Your task to perform on an android device: choose inbox layout in the gmail app Image 0: 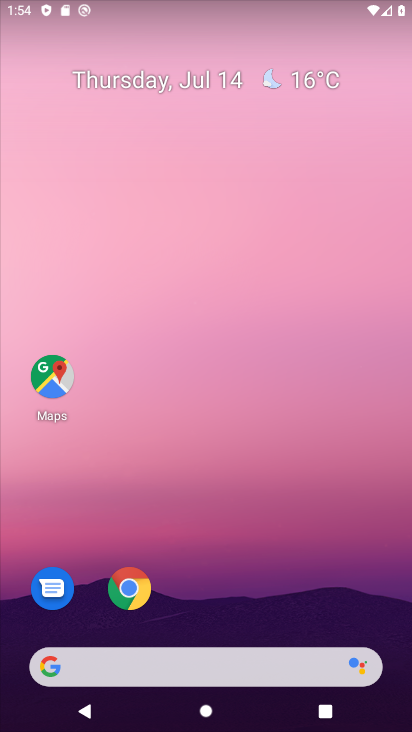
Step 0: drag from (206, 611) to (340, 30)
Your task to perform on an android device: choose inbox layout in the gmail app Image 1: 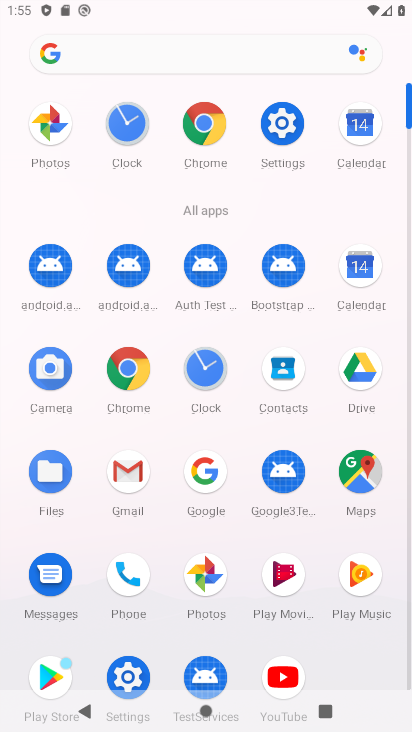
Step 1: click (137, 462)
Your task to perform on an android device: choose inbox layout in the gmail app Image 2: 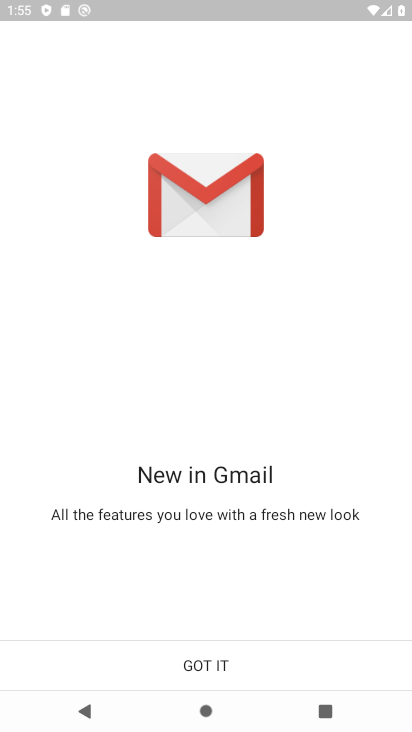
Step 2: click (247, 669)
Your task to perform on an android device: choose inbox layout in the gmail app Image 3: 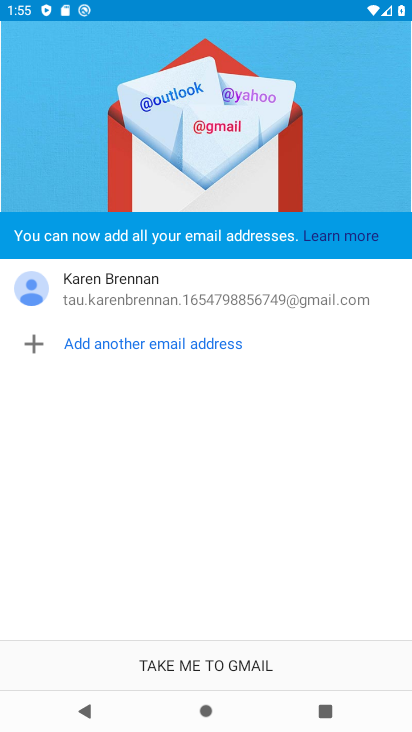
Step 3: click (247, 669)
Your task to perform on an android device: choose inbox layout in the gmail app Image 4: 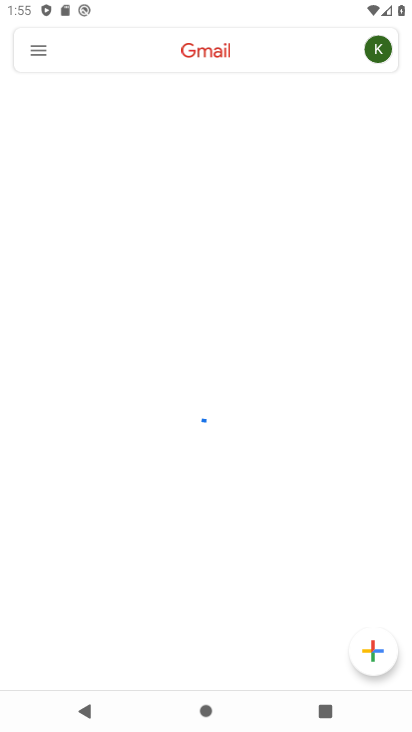
Step 4: click (37, 54)
Your task to perform on an android device: choose inbox layout in the gmail app Image 5: 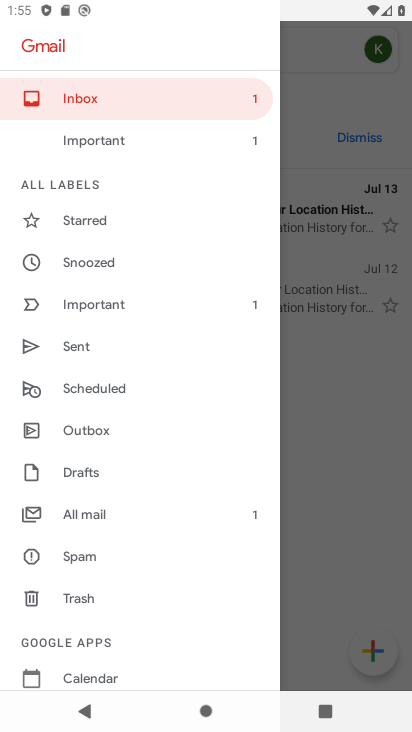
Step 5: drag from (103, 657) to (89, 332)
Your task to perform on an android device: choose inbox layout in the gmail app Image 6: 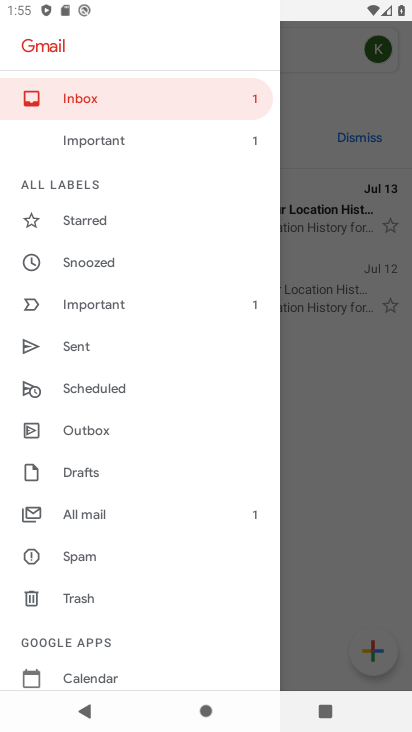
Step 6: drag from (82, 616) to (82, 341)
Your task to perform on an android device: choose inbox layout in the gmail app Image 7: 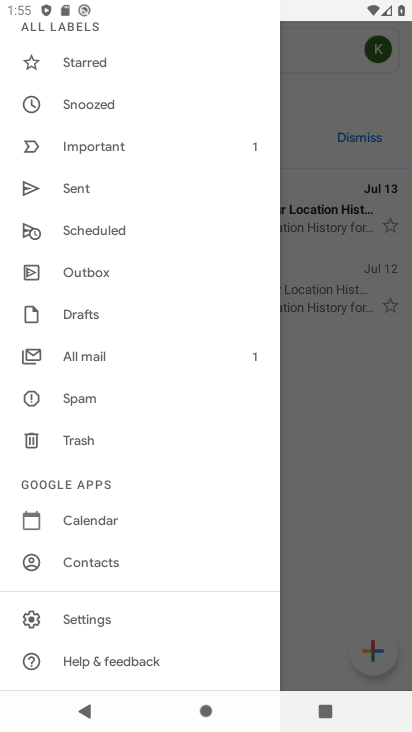
Step 7: click (94, 620)
Your task to perform on an android device: choose inbox layout in the gmail app Image 8: 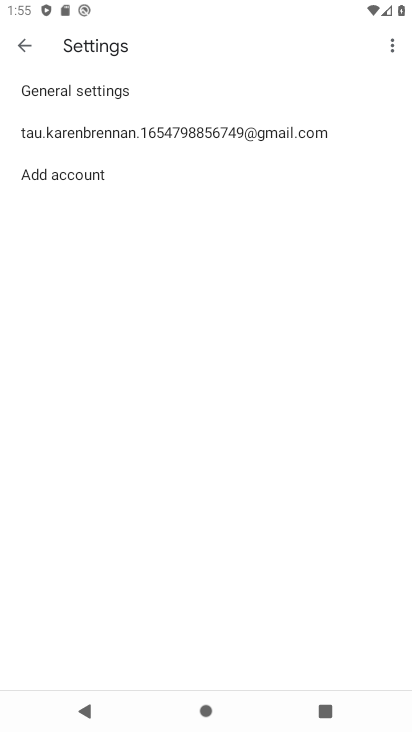
Step 8: click (270, 141)
Your task to perform on an android device: choose inbox layout in the gmail app Image 9: 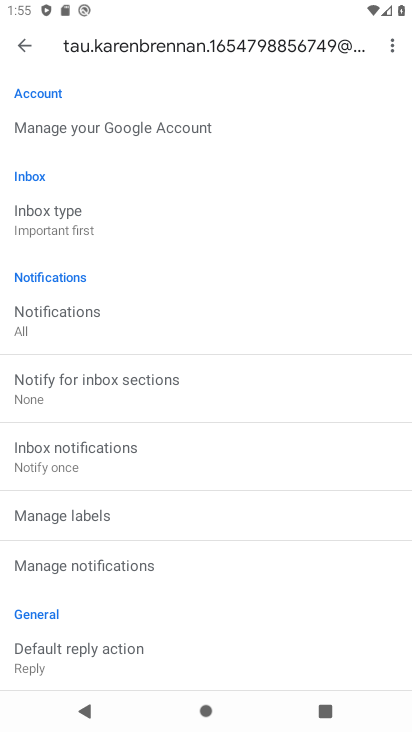
Step 9: click (100, 232)
Your task to perform on an android device: choose inbox layout in the gmail app Image 10: 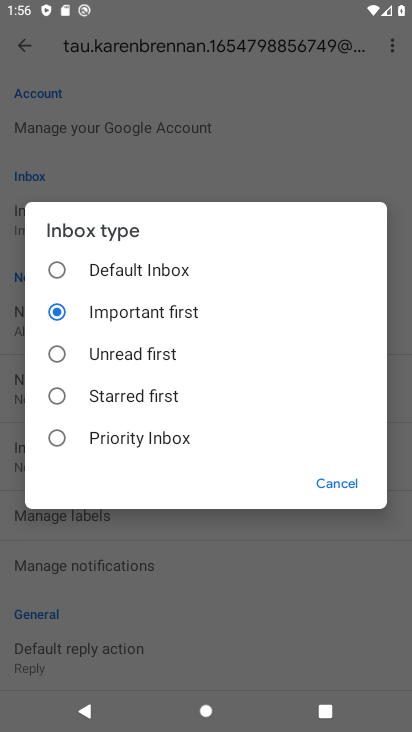
Step 10: click (118, 271)
Your task to perform on an android device: choose inbox layout in the gmail app Image 11: 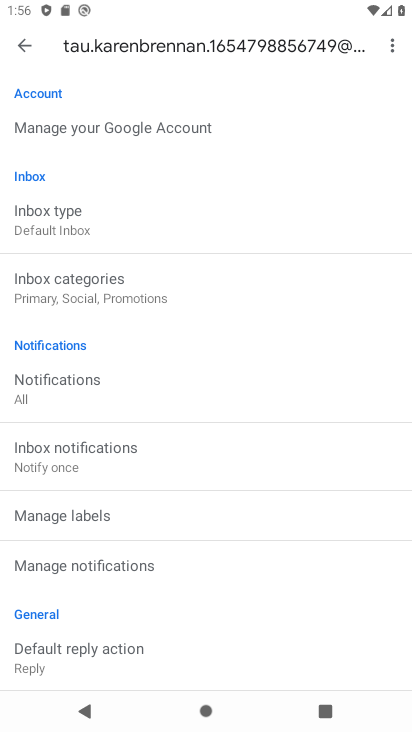
Step 11: task complete